Your task to perform on an android device: empty trash in google photos Image 0: 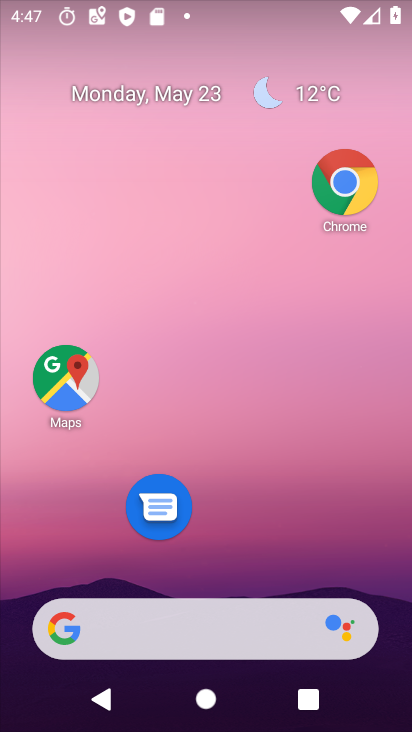
Step 0: task complete